Your task to perform on an android device: open app "Google Translate" Image 0: 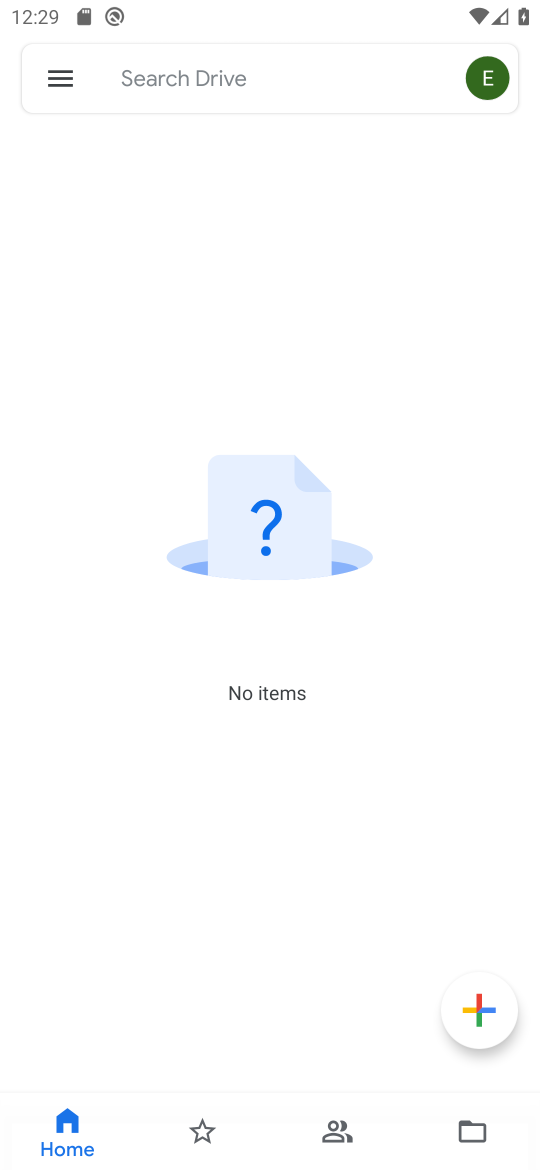
Step 0: press home button
Your task to perform on an android device: open app "Google Translate" Image 1: 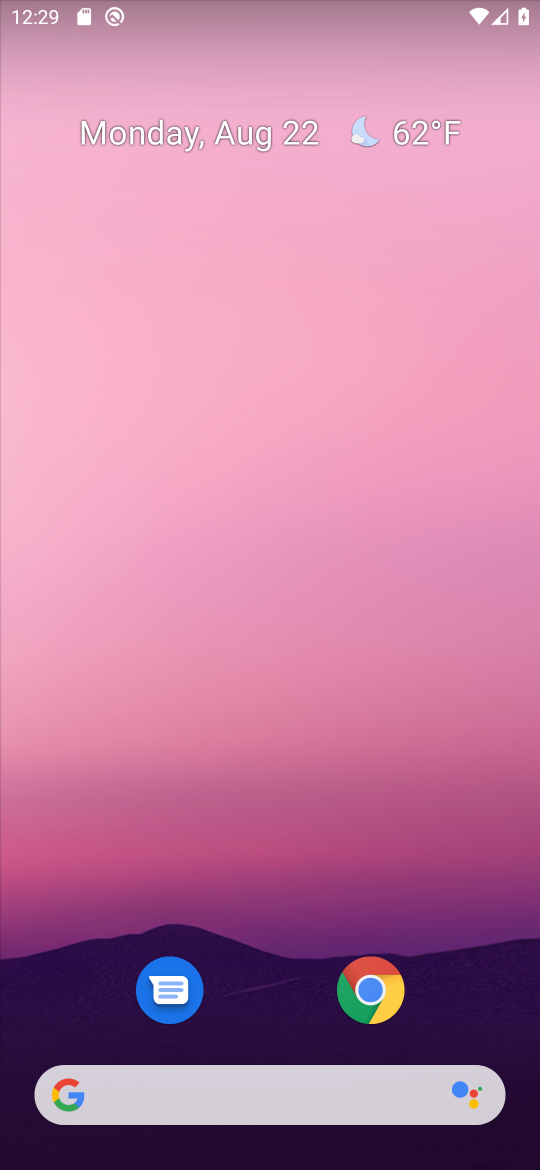
Step 1: drag from (279, 782) to (277, 198)
Your task to perform on an android device: open app "Google Translate" Image 2: 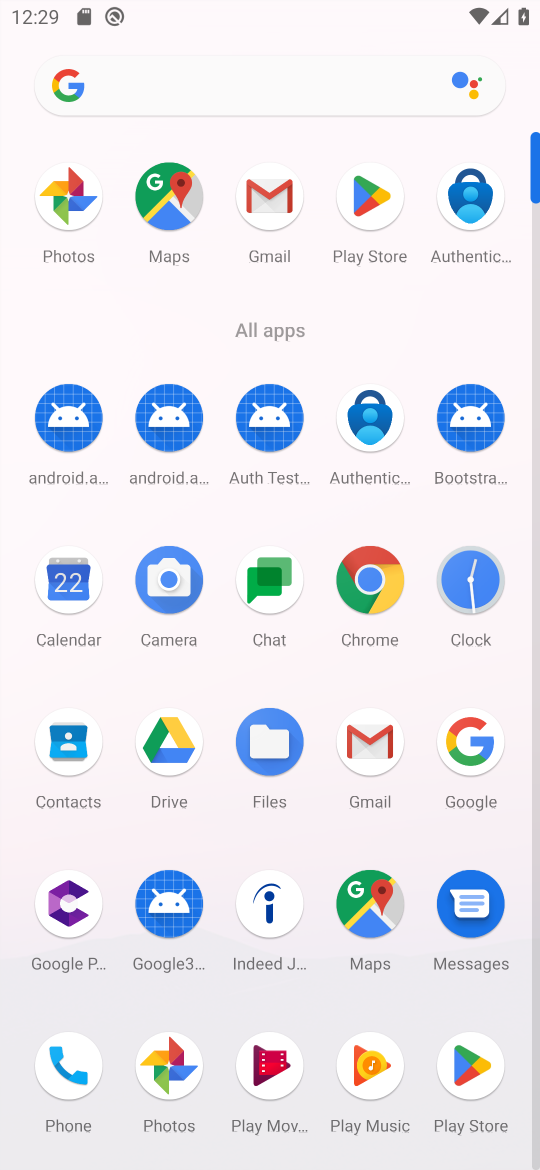
Step 2: click (356, 194)
Your task to perform on an android device: open app "Google Translate" Image 3: 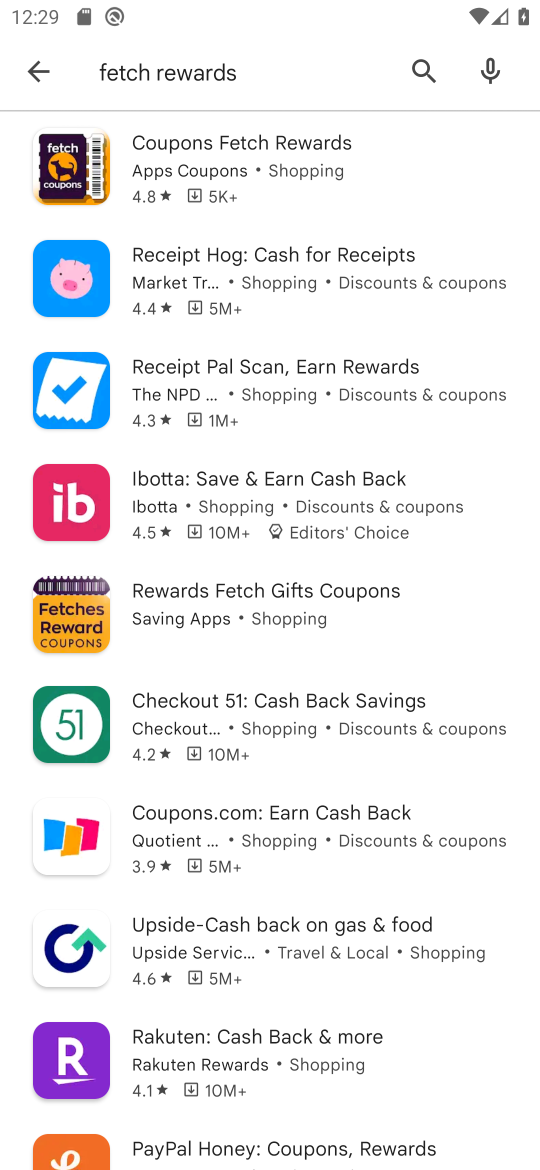
Step 3: click (416, 72)
Your task to perform on an android device: open app "Google Translate" Image 4: 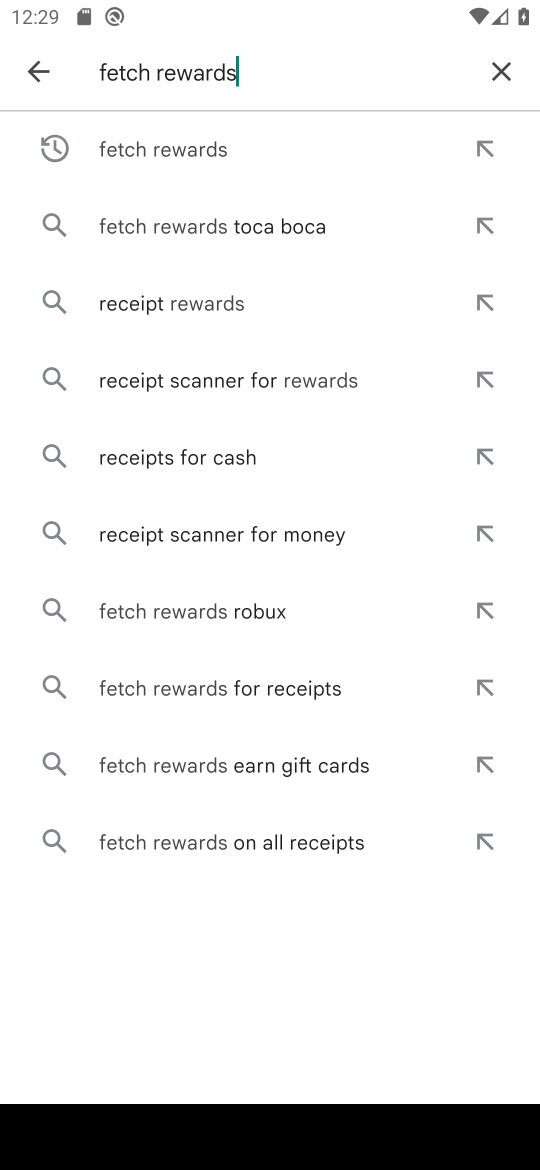
Step 4: click (491, 66)
Your task to perform on an android device: open app "Google Translate" Image 5: 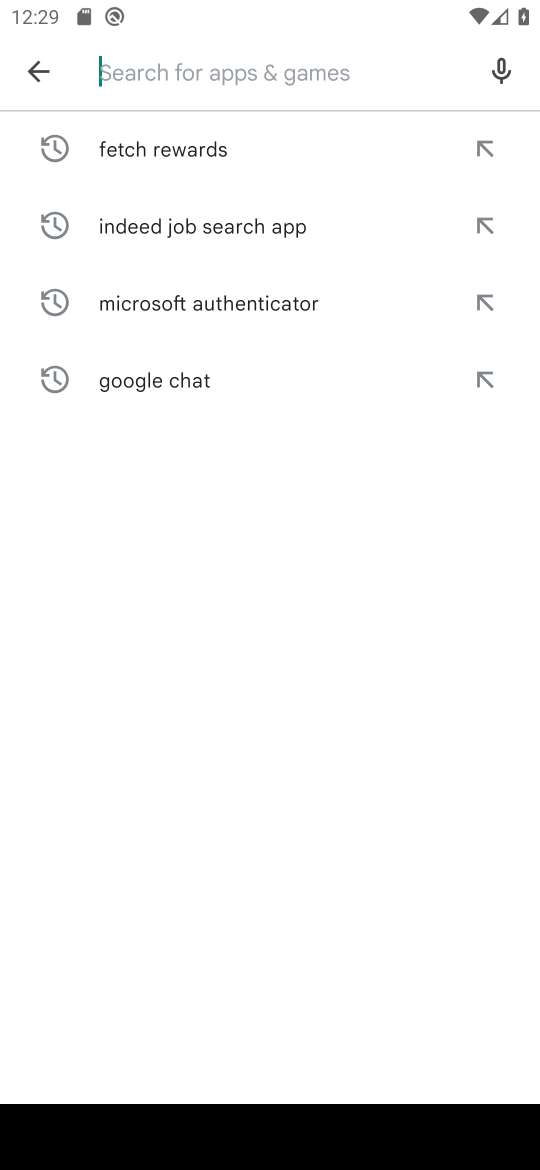
Step 5: type "Google Translate"
Your task to perform on an android device: open app "Google Translate" Image 6: 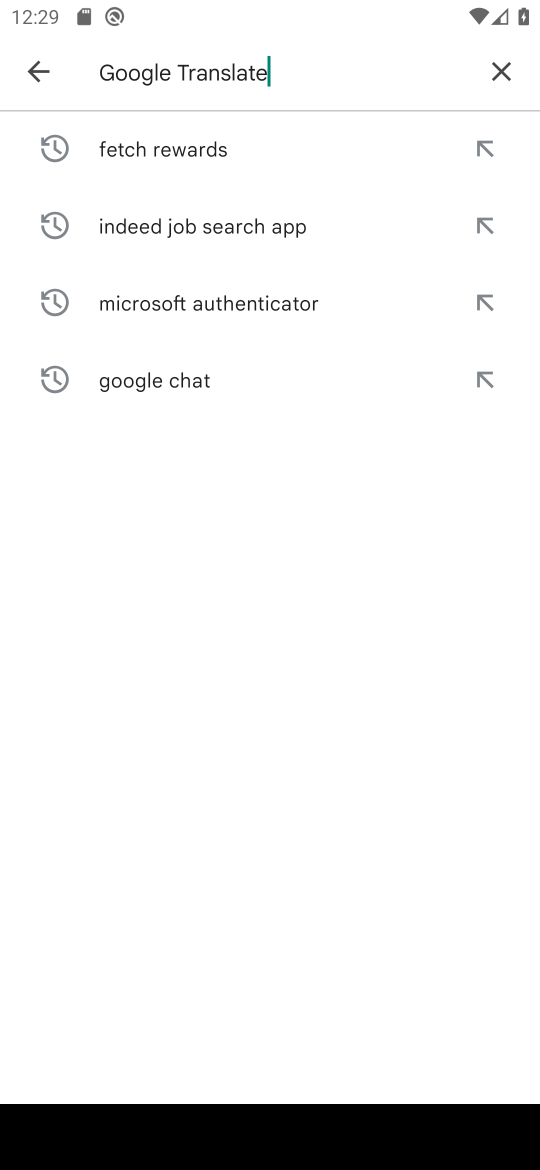
Step 6: type ""
Your task to perform on an android device: open app "Google Translate" Image 7: 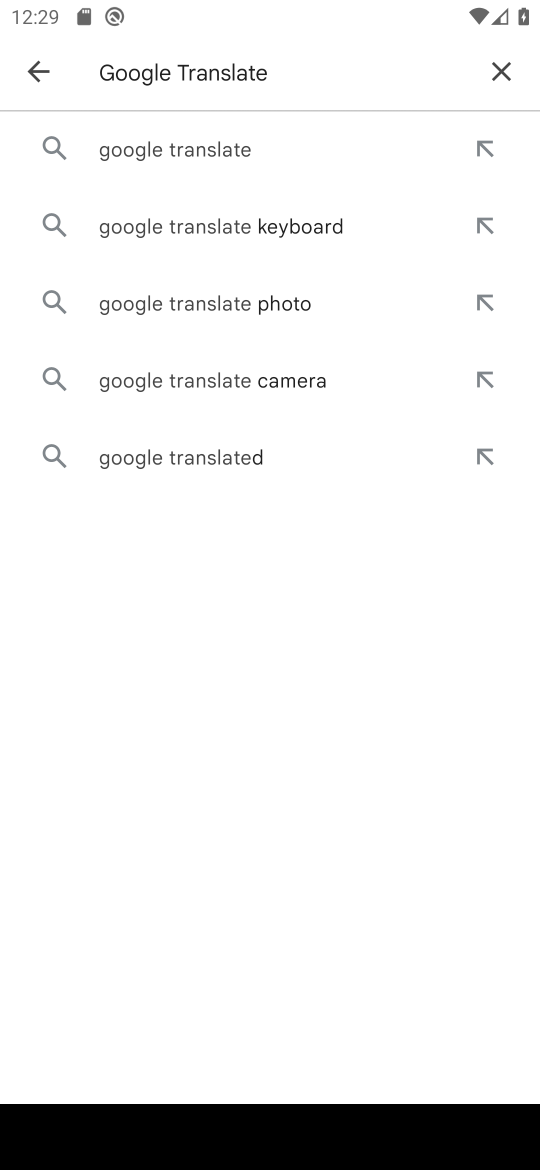
Step 7: click (158, 140)
Your task to perform on an android device: open app "Google Translate" Image 8: 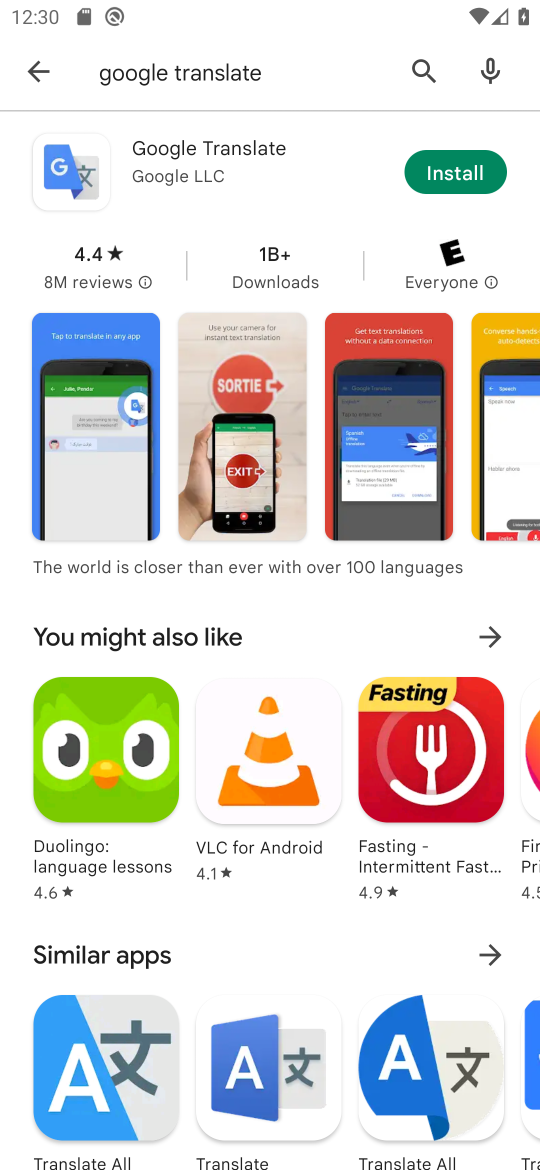
Step 8: task complete